Your task to perform on an android device: snooze an email in the gmail app Image 0: 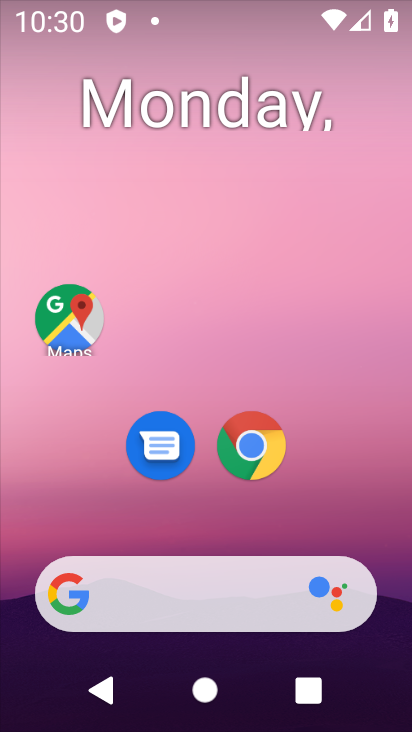
Step 0: drag from (304, 422) to (131, 45)
Your task to perform on an android device: snooze an email in the gmail app Image 1: 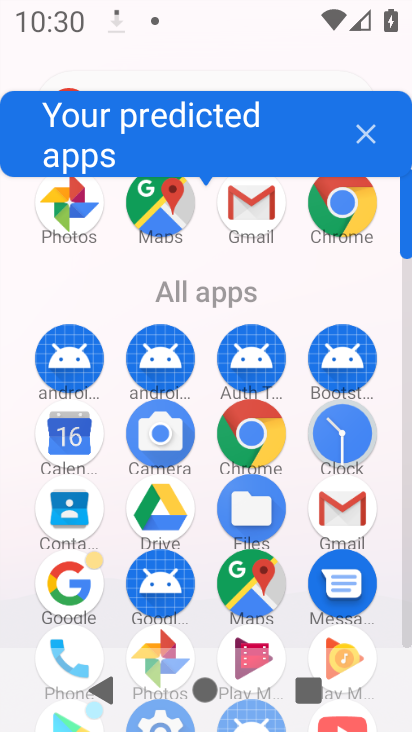
Step 1: click (360, 511)
Your task to perform on an android device: snooze an email in the gmail app Image 2: 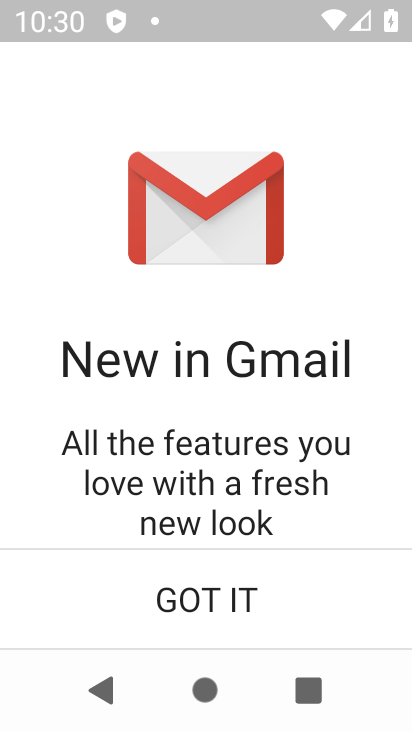
Step 2: click (213, 609)
Your task to perform on an android device: snooze an email in the gmail app Image 3: 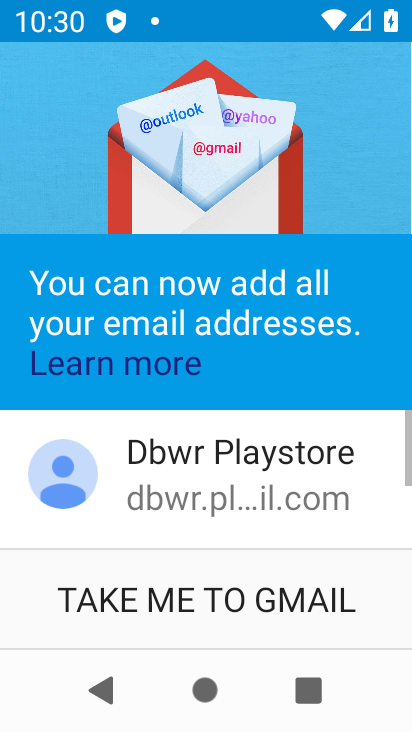
Step 3: click (213, 609)
Your task to perform on an android device: snooze an email in the gmail app Image 4: 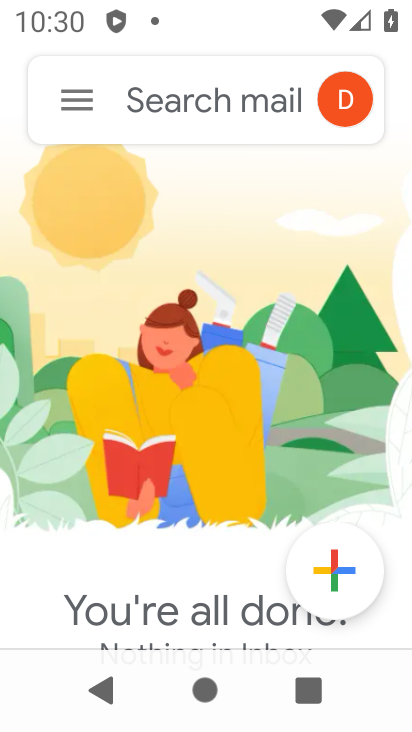
Step 4: click (72, 105)
Your task to perform on an android device: snooze an email in the gmail app Image 5: 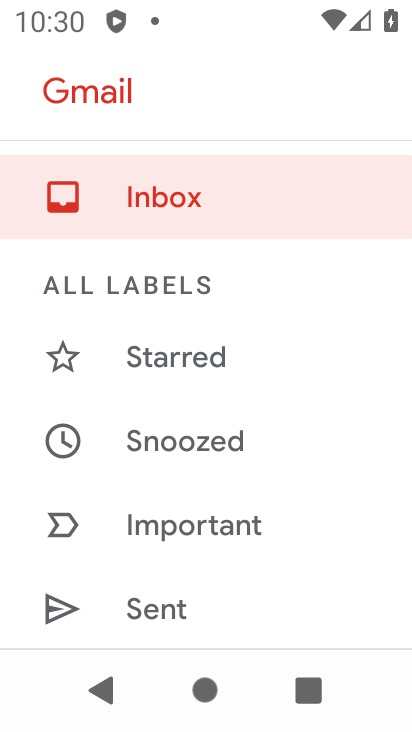
Step 5: task complete